Your task to perform on an android device: Search for Italian restaurants on Maps Image 0: 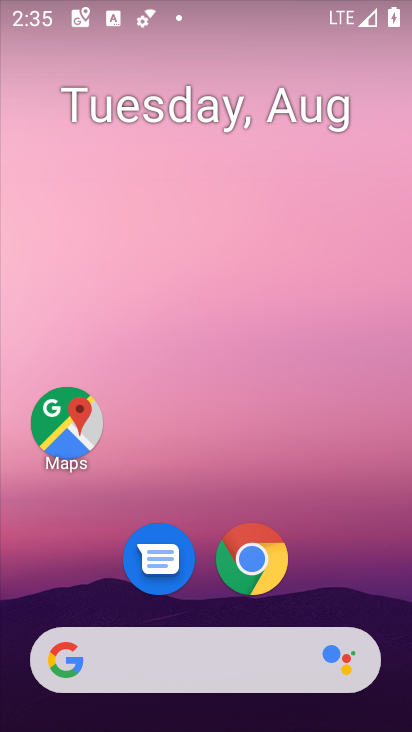
Step 0: click (87, 415)
Your task to perform on an android device: Search for Italian restaurants on Maps Image 1: 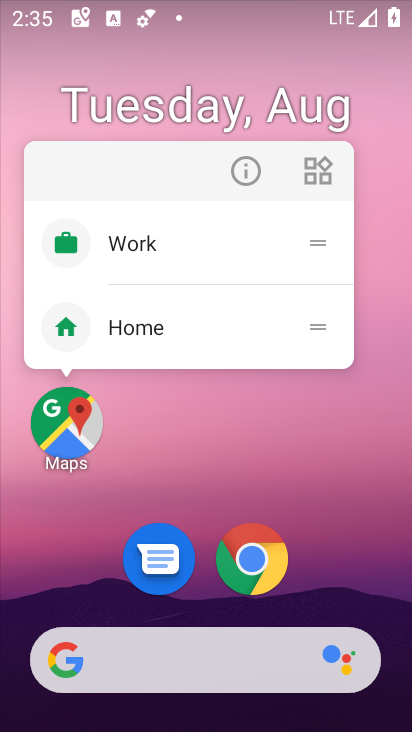
Step 1: click (87, 415)
Your task to perform on an android device: Search for Italian restaurants on Maps Image 2: 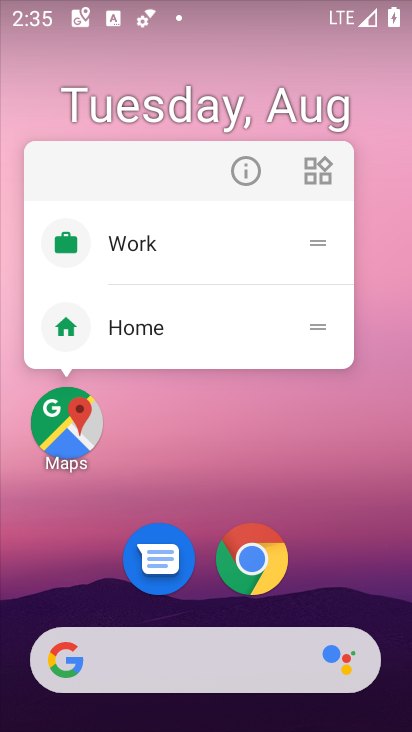
Step 2: click (87, 415)
Your task to perform on an android device: Search for Italian restaurants on Maps Image 3: 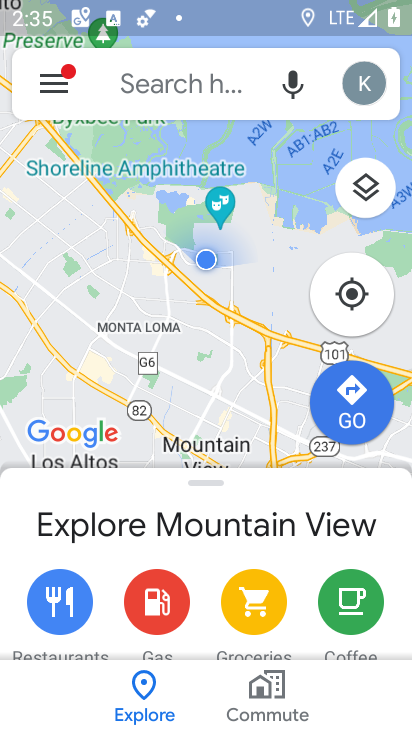
Step 3: click (212, 79)
Your task to perform on an android device: Search for Italian restaurants on Maps Image 4: 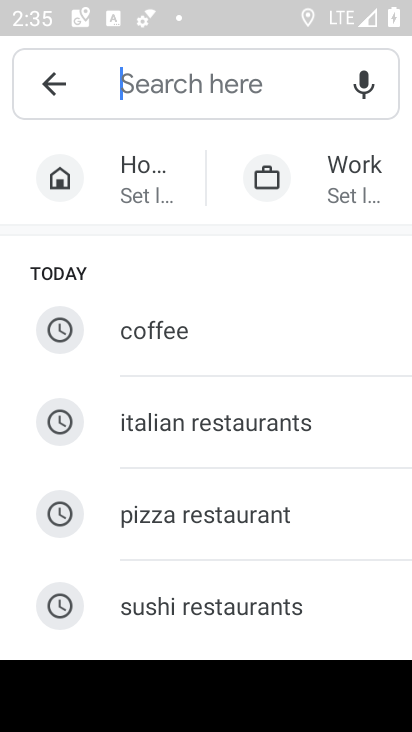
Step 4: type "Italian restaurants on Maps"
Your task to perform on an android device: Search for Italian restaurants on Maps Image 5: 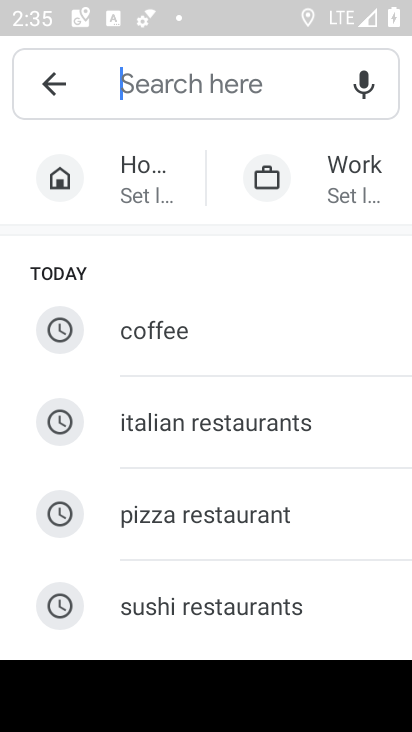
Step 5: click (268, 430)
Your task to perform on an android device: Search for Italian restaurants on Maps Image 6: 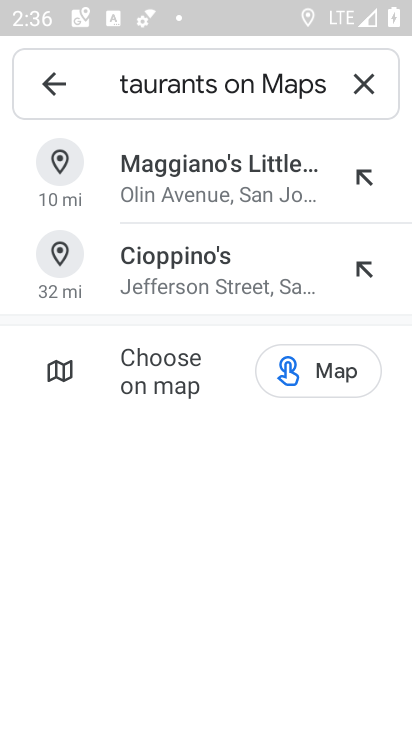
Step 6: click (371, 81)
Your task to perform on an android device: Search for Italian restaurants on Maps Image 7: 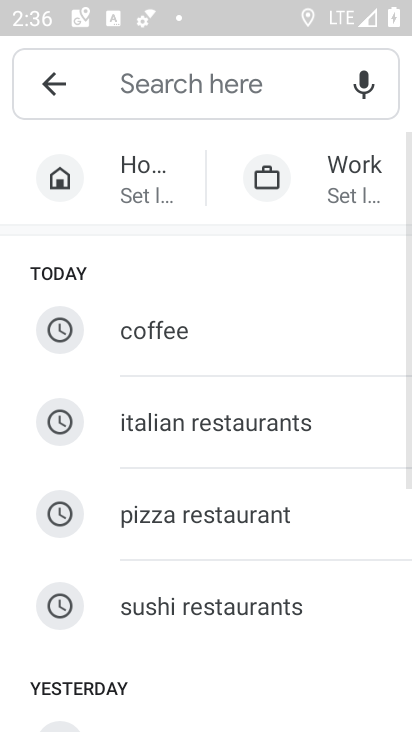
Step 7: click (159, 86)
Your task to perform on an android device: Search for Italian restaurants on Maps Image 8: 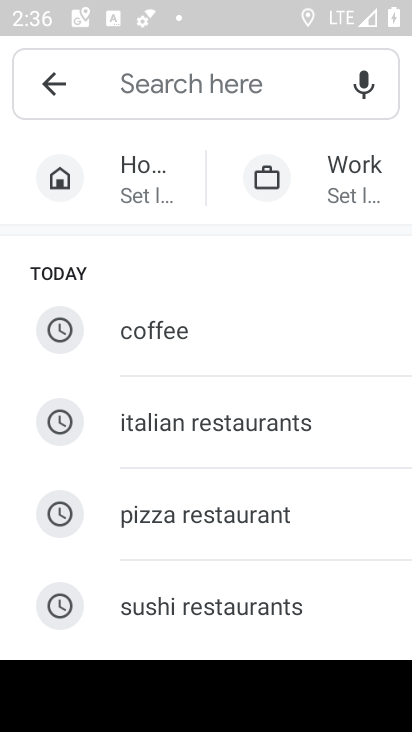
Step 8: click (216, 426)
Your task to perform on an android device: Search for Italian restaurants on Maps Image 9: 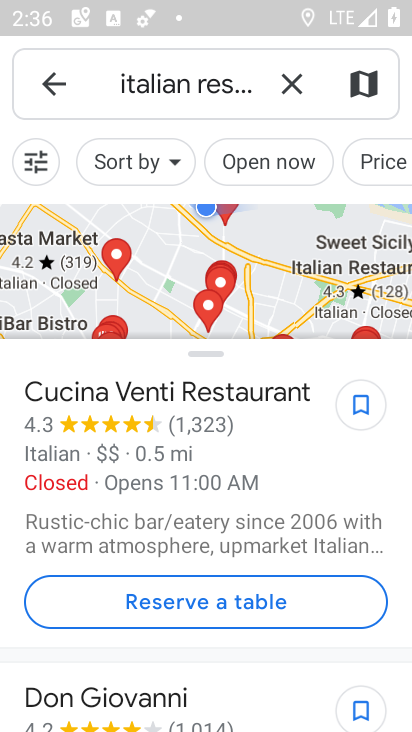
Step 9: task complete